Your task to perform on an android device: Open battery settings Image 0: 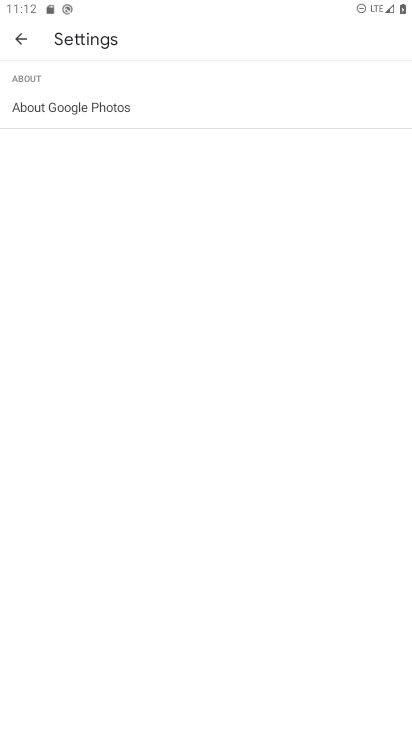
Step 0: press home button
Your task to perform on an android device: Open battery settings Image 1: 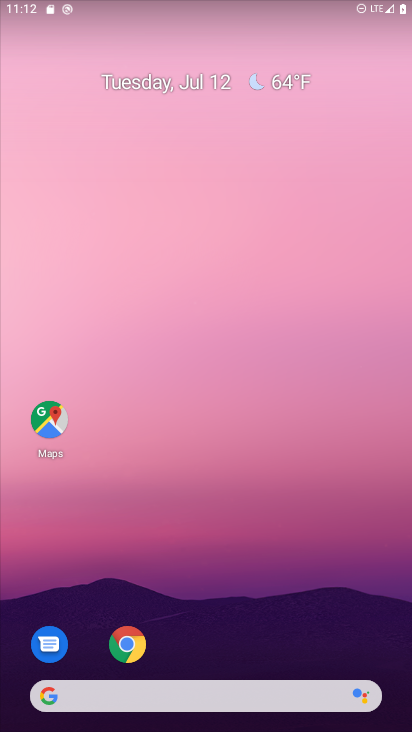
Step 1: drag from (225, 634) to (206, 149)
Your task to perform on an android device: Open battery settings Image 2: 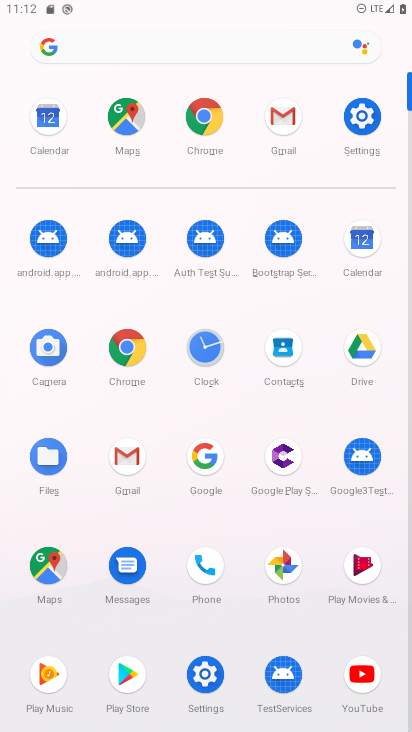
Step 2: click (341, 127)
Your task to perform on an android device: Open battery settings Image 3: 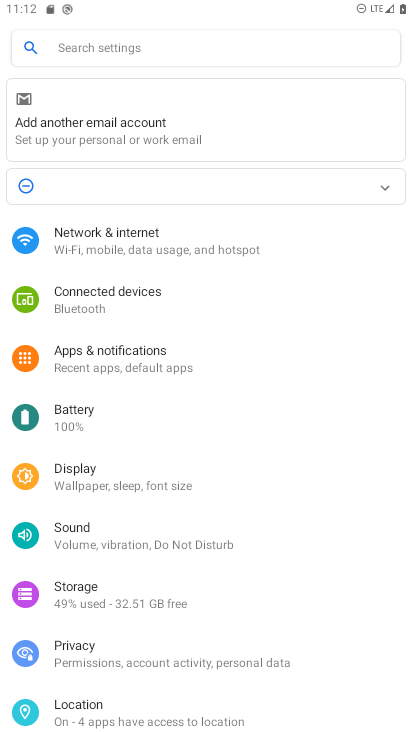
Step 3: click (140, 434)
Your task to perform on an android device: Open battery settings Image 4: 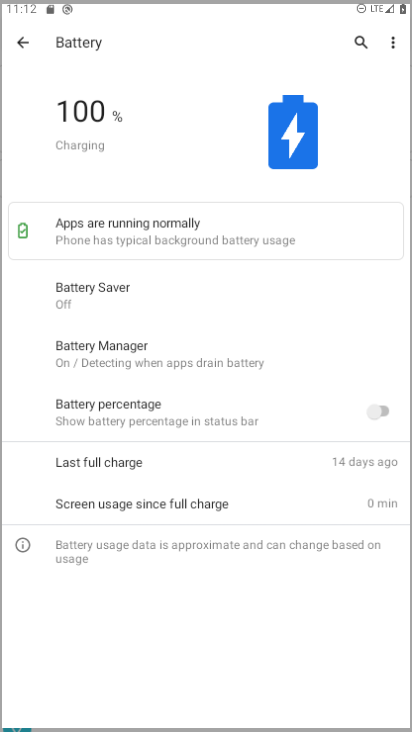
Step 4: task complete